Your task to perform on an android device: turn on data saver in the chrome app Image 0: 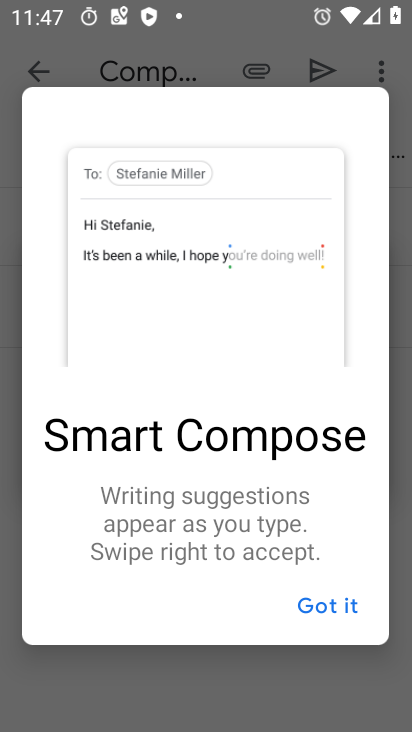
Step 0: press home button
Your task to perform on an android device: turn on data saver in the chrome app Image 1: 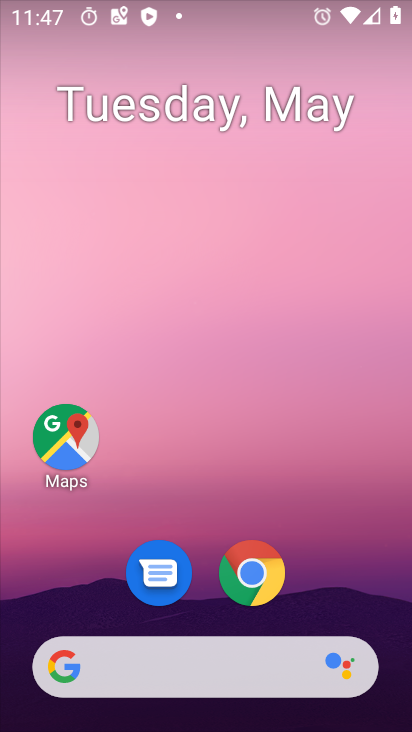
Step 1: drag from (286, 686) to (251, 257)
Your task to perform on an android device: turn on data saver in the chrome app Image 2: 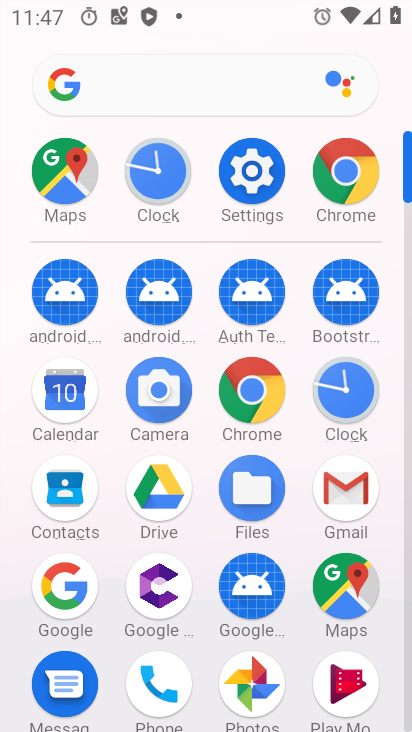
Step 2: click (243, 194)
Your task to perform on an android device: turn on data saver in the chrome app Image 3: 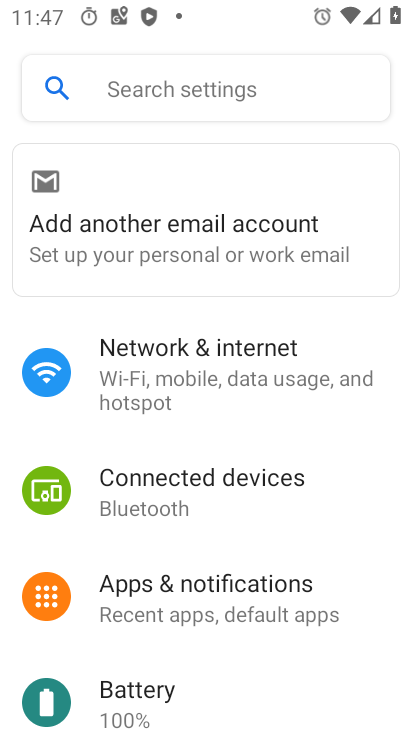
Step 3: press home button
Your task to perform on an android device: turn on data saver in the chrome app Image 4: 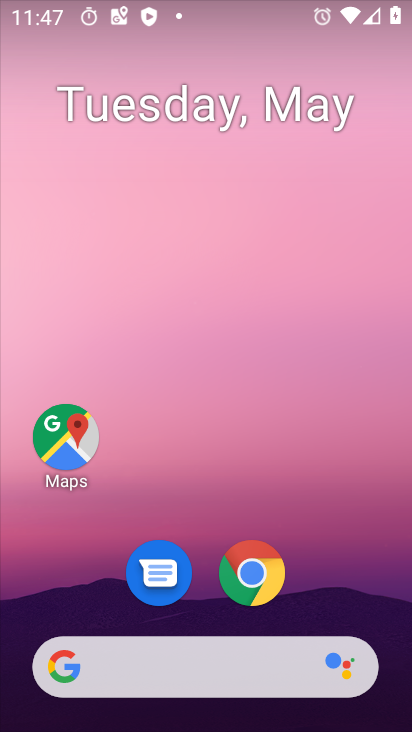
Step 4: drag from (273, 683) to (271, 348)
Your task to perform on an android device: turn on data saver in the chrome app Image 5: 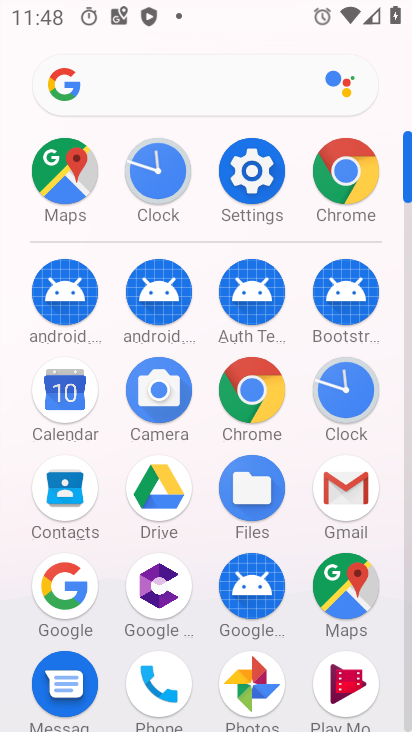
Step 5: click (320, 172)
Your task to perform on an android device: turn on data saver in the chrome app Image 6: 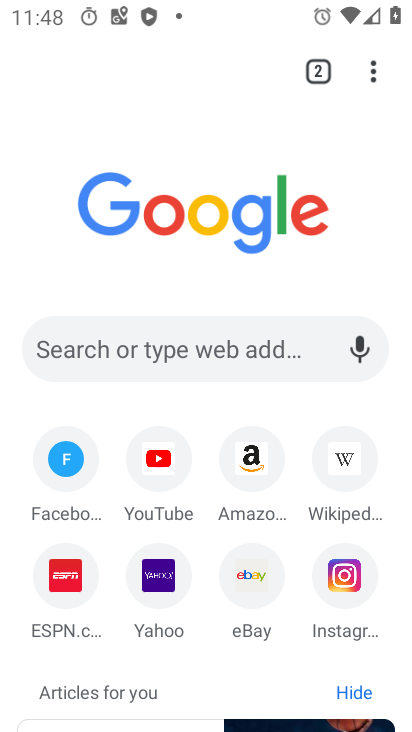
Step 6: click (366, 73)
Your task to perform on an android device: turn on data saver in the chrome app Image 7: 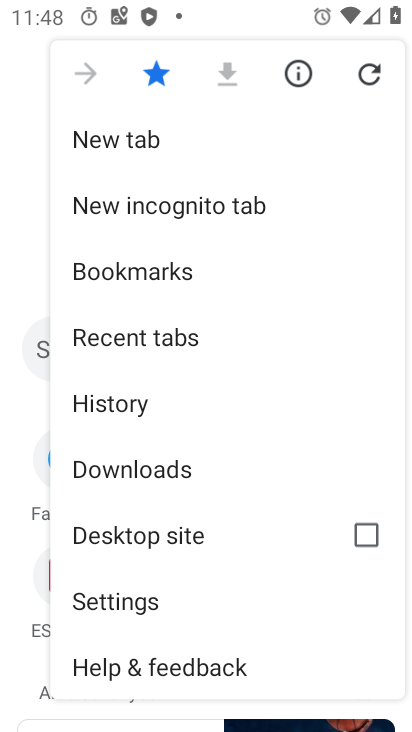
Step 7: click (115, 599)
Your task to perform on an android device: turn on data saver in the chrome app Image 8: 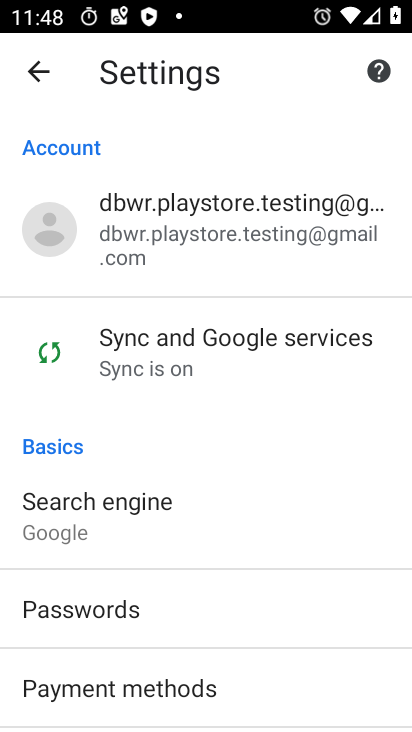
Step 8: drag from (109, 559) to (217, 78)
Your task to perform on an android device: turn on data saver in the chrome app Image 9: 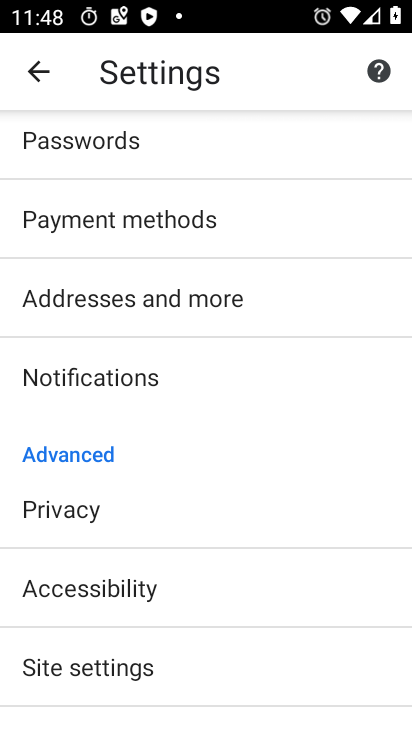
Step 9: drag from (187, 564) to (226, 384)
Your task to perform on an android device: turn on data saver in the chrome app Image 10: 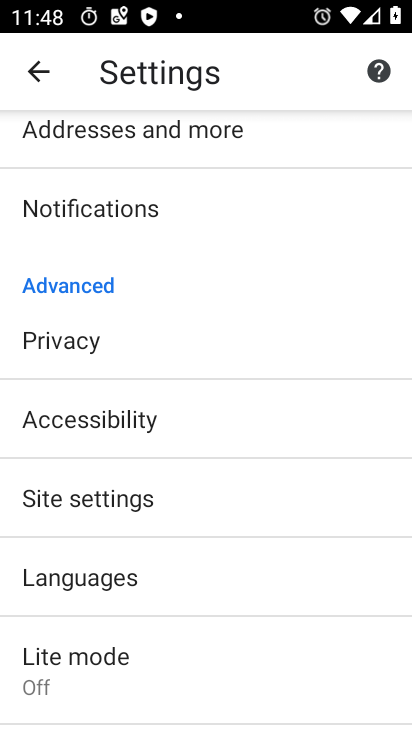
Step 10: click (83, 642)
Your task to perform on an android device: turn on data saver in the chrome app Image 11: 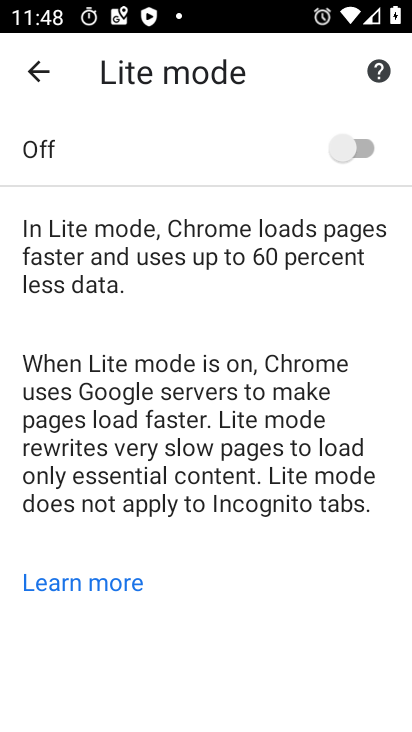
Step 11: click (346, 164)
Your task to perform on an android device: turn on data saver in the chrome app Image 12: 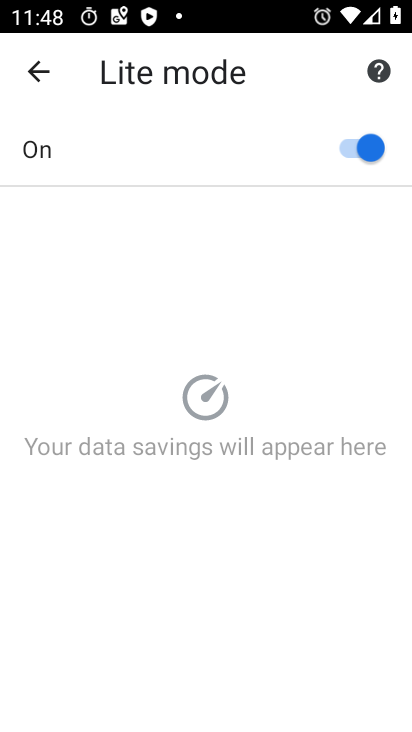
Step 12: task complete